Your task to perform on an android device: Show me productivity apps on the Play Store Image 0: 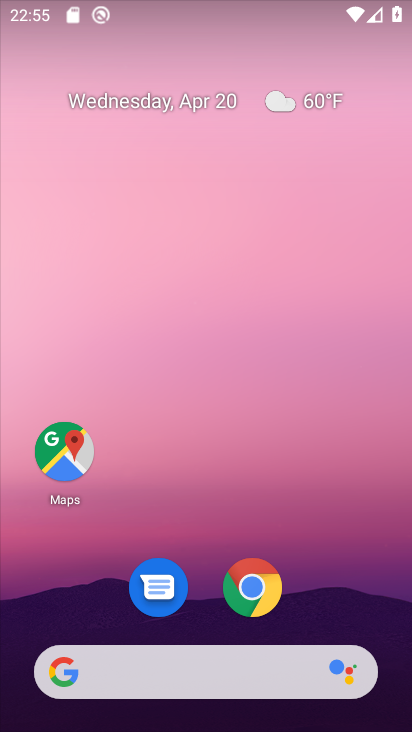
Step 0: drag from (208, 618) to (223, 86)
Your task to perform on an android device: Show me productivity apps on the Play Store Image 1: 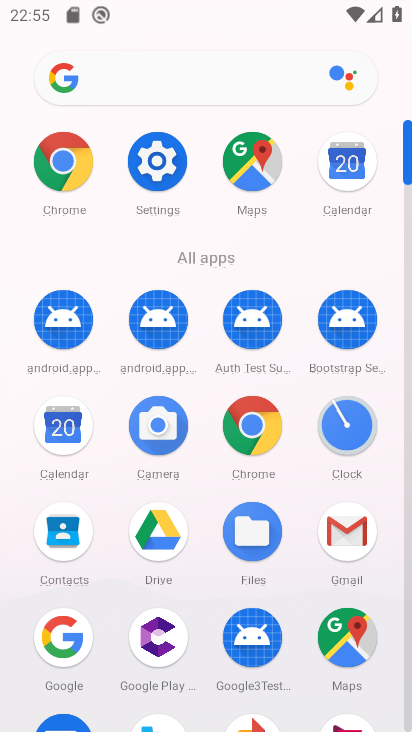
Step 1: drag from (202, 698) to (219, 208)
Your task to perform on an android device: Show me productivity apps on the Play Store Image 2: 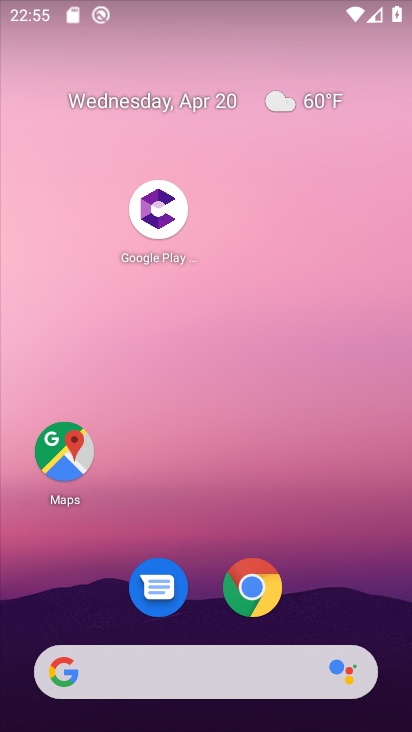
Step 2: drag from (308, 613) to (340, 0)
Your task to perform on an android device: Show me productivity apps on the Play Store Image 3: 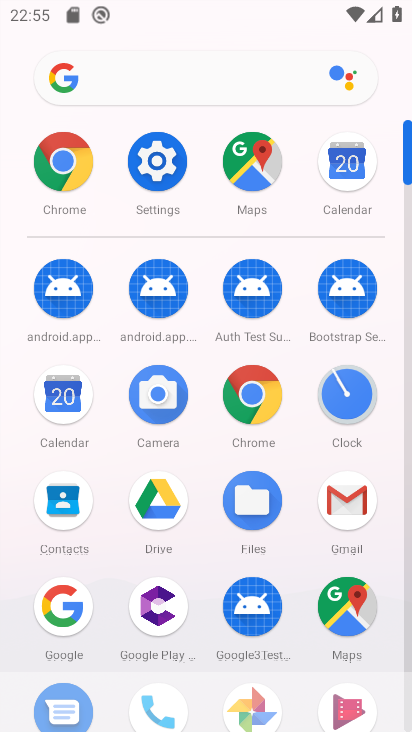
Step 3: drag from (299, 552) to (322, 180)
Your task to perform on an android device: Show me productivity apps on the Play Store Image 4: 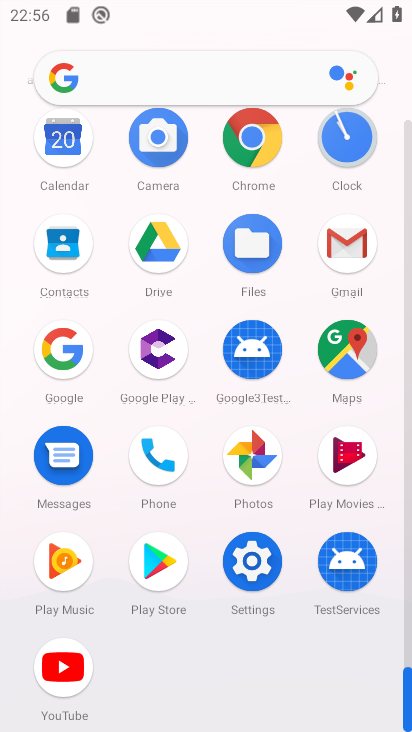
Step 4: click (151, 550)
Your task to perform on an android device: Show me productivity apps on the Play Store Image 5: 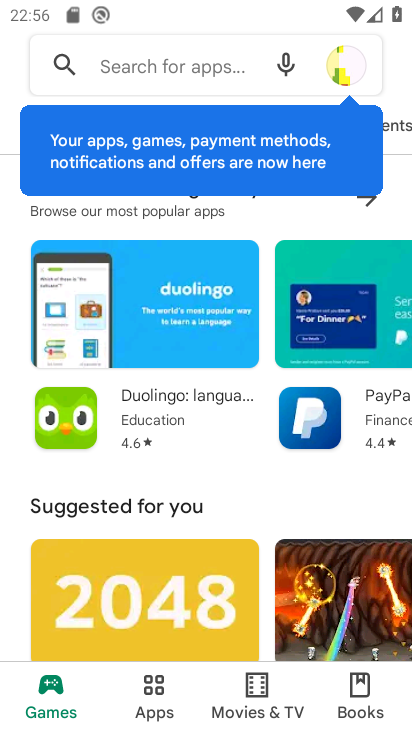
Step 5: drag from (143, 593) to (151, 174)
Your task to perform on an android device: Show me productivity apps on the Play Store Image 6: 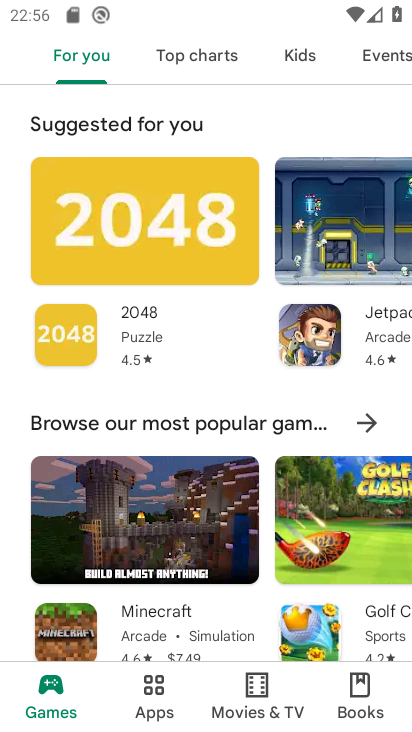
Step 6: drag from (154, 543) to (156, 172)
Your task to perform on an android device: Show me productivity apps on the Play Store Image 7: 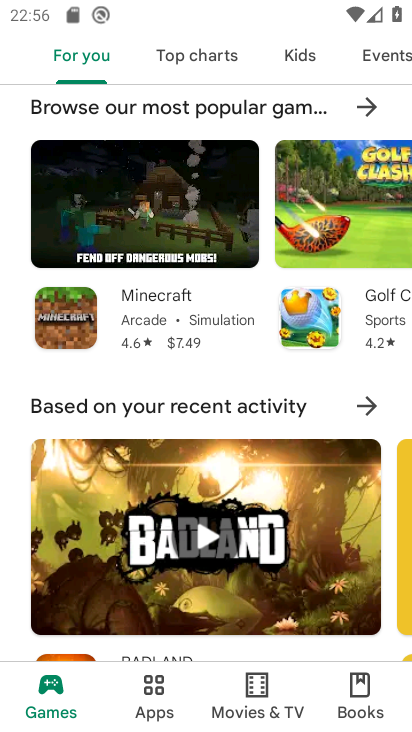
Step 7: click (150, 691)
Your task to perform on an android device: Show me productivity apps on the Play Store Image 8: 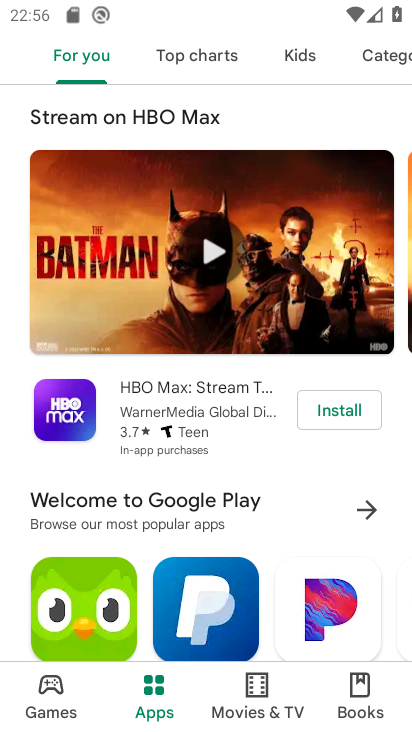
Step 8: task complete